Your task to perform on an android device: Go to settings Image 0: 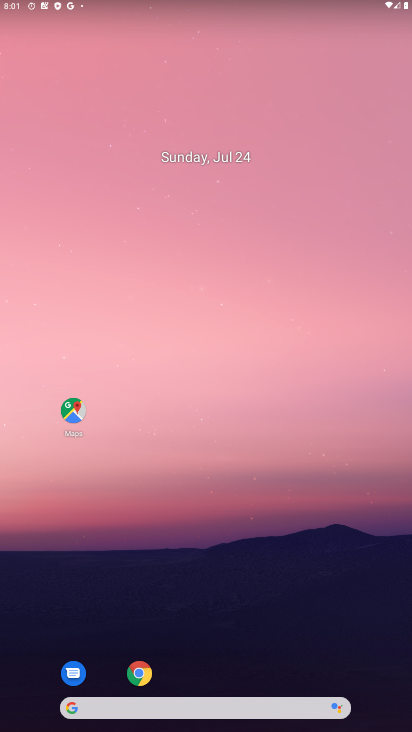
Step 0: click (86, 707)
Your task to perform on an android device: Go to settings Image 1: 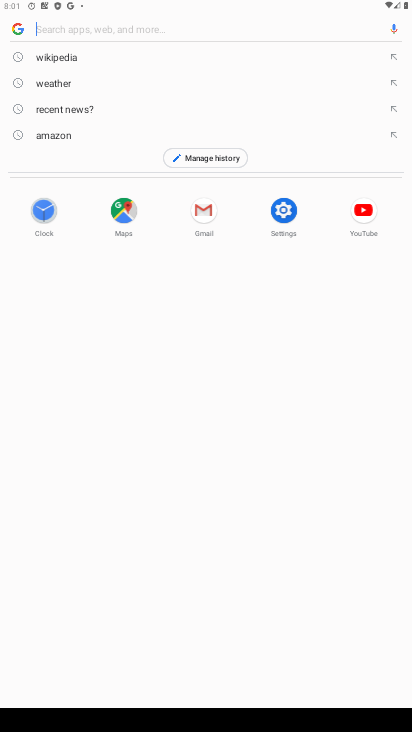
Step 1: task complete